Your task to perform on an android device: Do I have any events tomorrow? Image 0: 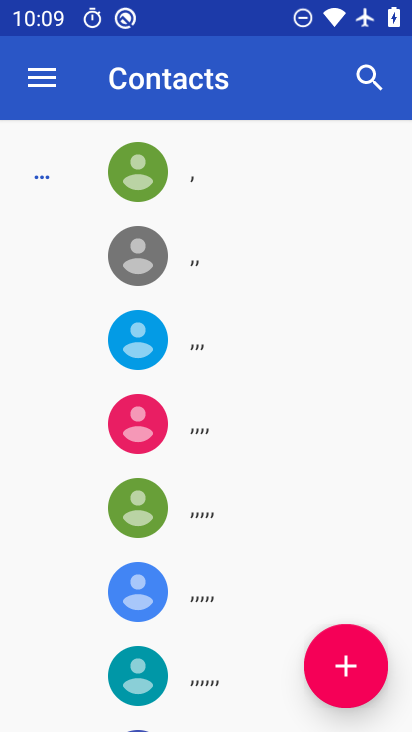
Step 0: press home button
Your task to perform on an android device: Do I have any events tomorrow? Image 1: 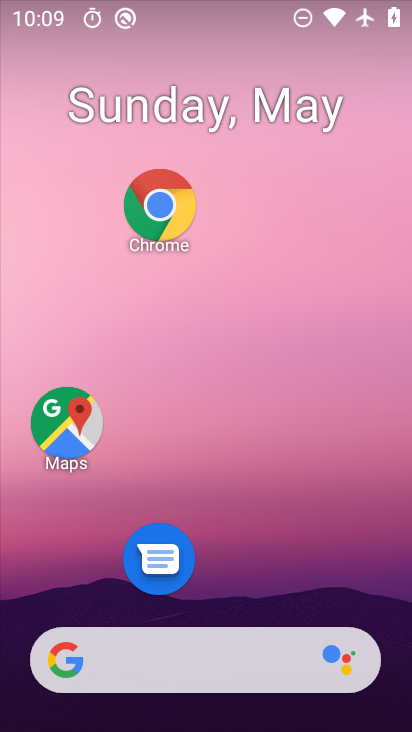
Step 1: drag from (282, 624) to (286, 46)
Your task to perform on an android device: Do I have any events tomorrow? Image 2: 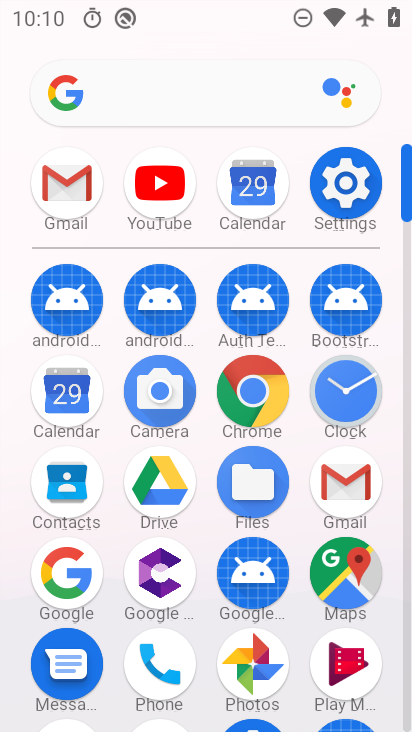
Step 2: click (51, 402)
Your task to perform on an android device: Do I have any events tomorrow? Image 3: 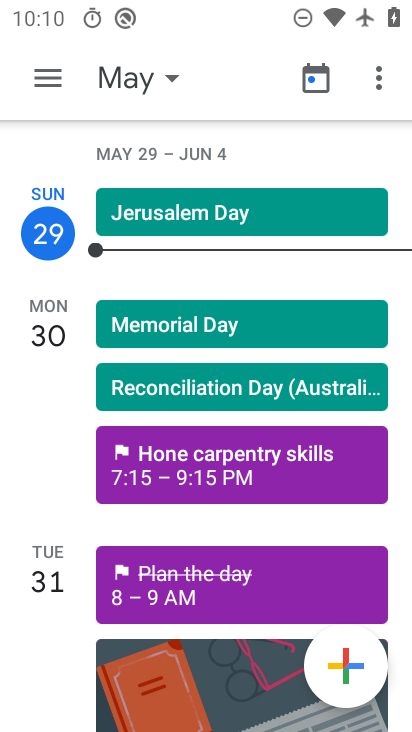
Step 3: task complete